Your task to perform on an android device: toggle priority inbox in the gmail app Image 0: 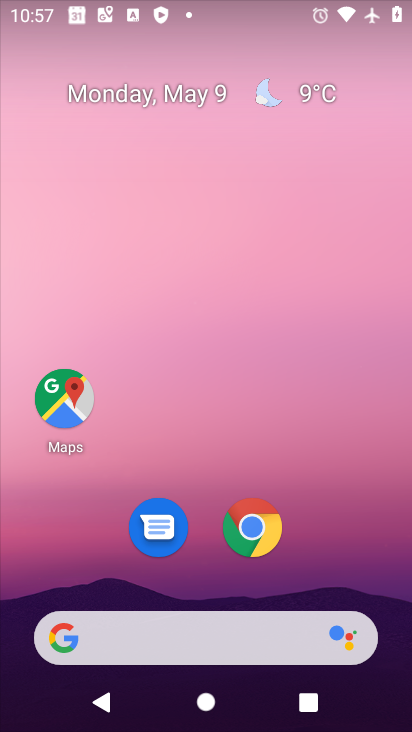
Step 0: drag from (383, 604) to (323, 166)
Your task to perform on an android device: toggle priority inbox in the gmail app Image 1: 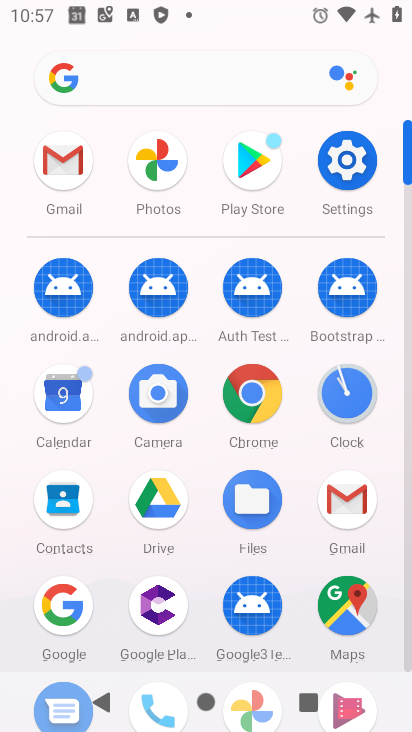
Step 1: click (407, 666)
Your task to perform on an android device: toggle priority inbox in the gmail app Image 2: 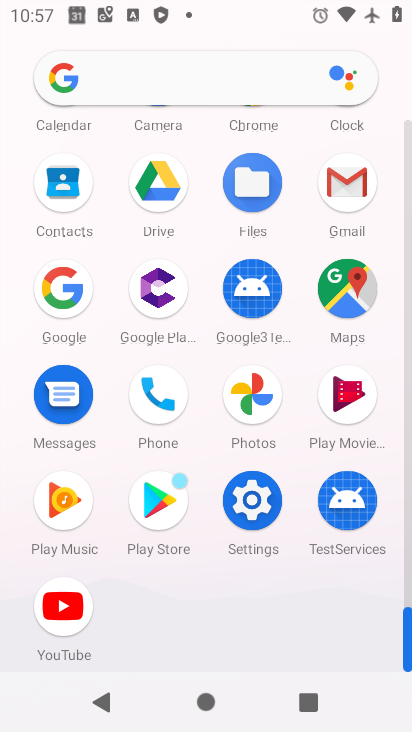
Step 2: click (342, 183)
Your task to perform on an android device: toggle priority inbox in the gmail app Image 3: 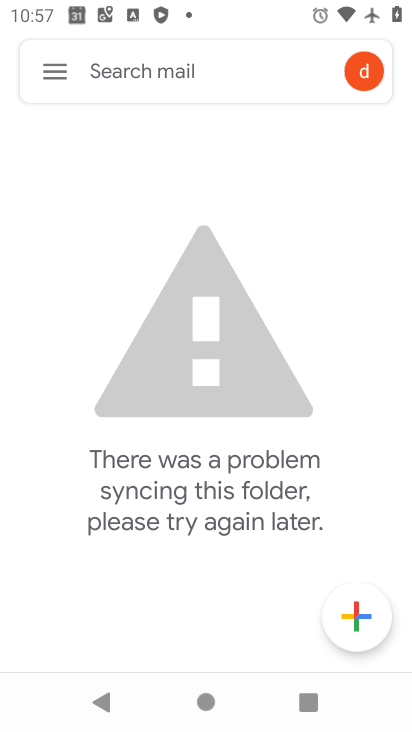
Step 3: click (49, 68)
Your task to perform on an android device: toggle priority inbox in the gmail app Image 4: 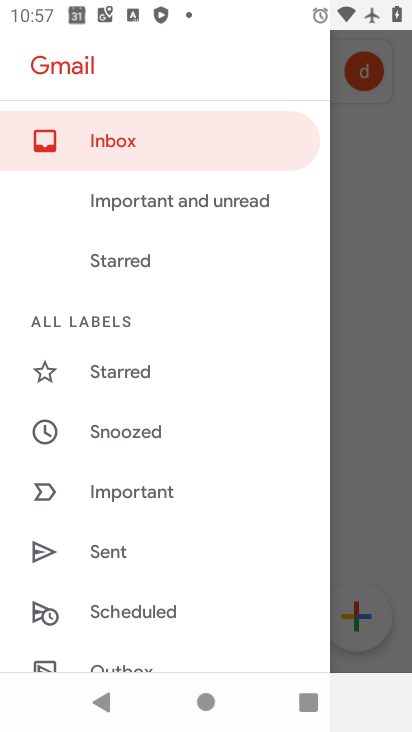
Step 4: drag from (207, 575) to (222, 283)
Your task to perform on an android device: toggle priority inbox in the gmail app Image 5: 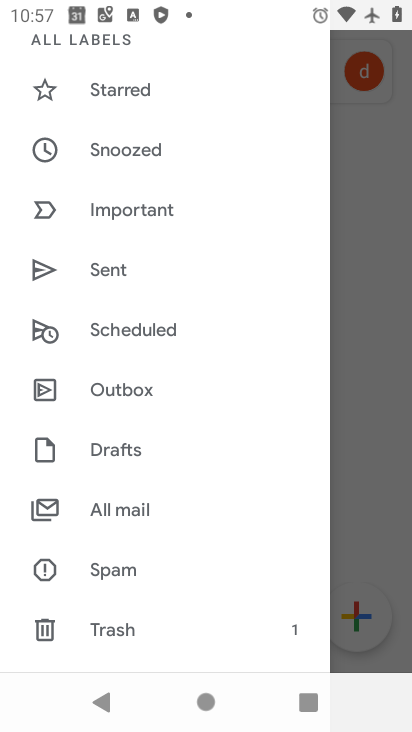
Step 5: drag from (162, 631) to (201, 140)
Your task to perform on an android device: toggle priority inbox in the gmail app Image 6: 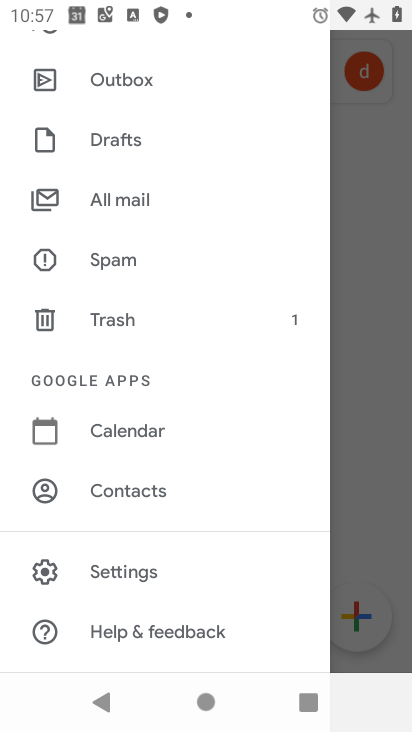
Step 6: click (117, 577)
Your task to perform on an android device: toggle priority inbox in the gmail app Image 7: 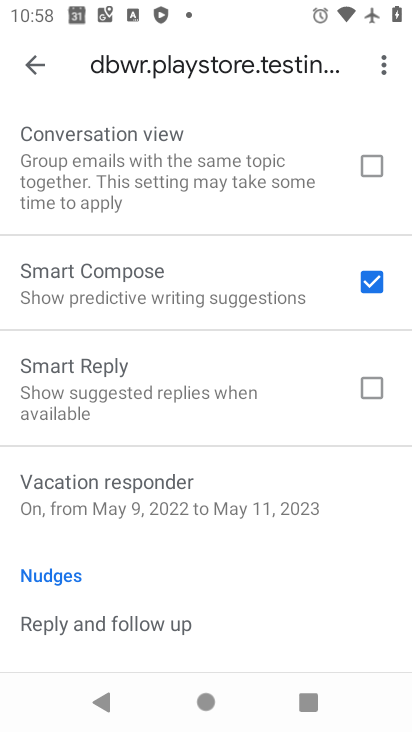
Step 7: drag from (281, 179) to (245, 537)
Your task to perform on an android device: toggle priority inbox in the gmail app Image 8: 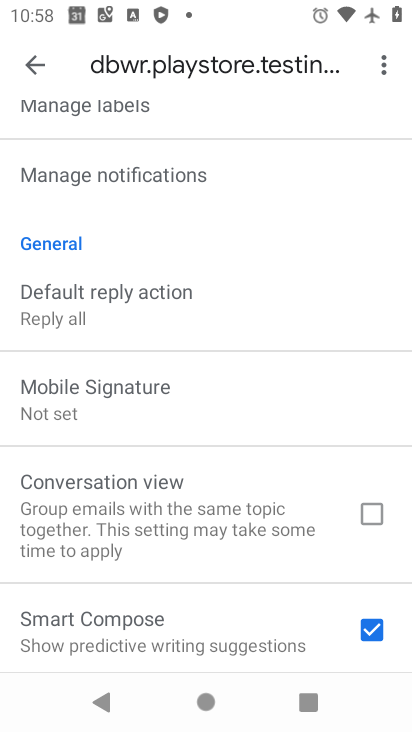
Step 8: drag from (257, 181) to (207, 485)
Your task to perform on an android device: toggle priority inbox in the gmail app Image 9: 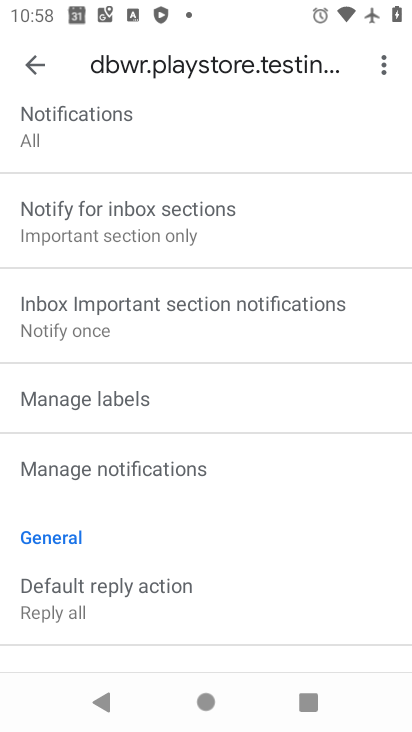
Step 9: drag from (282, 147) to (250, 531)
Your task to perform on an android device: toggle priority inbox in the gmail app Image 10: 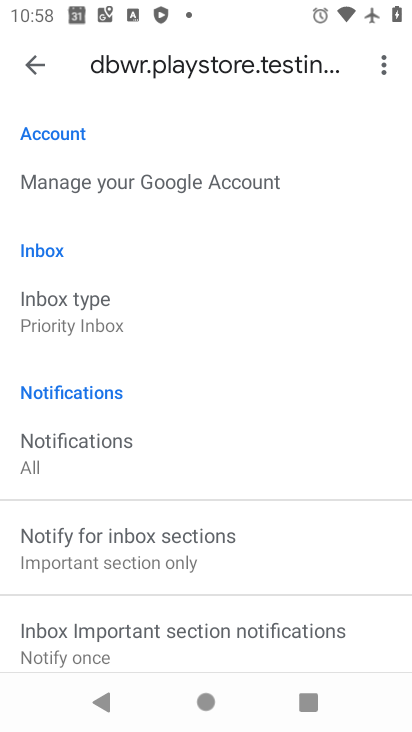
Step 10: drag from (276, 326) to (257, 551)
Your task to perform on an android device: toggle priority inbox in the gmail app Image 11: 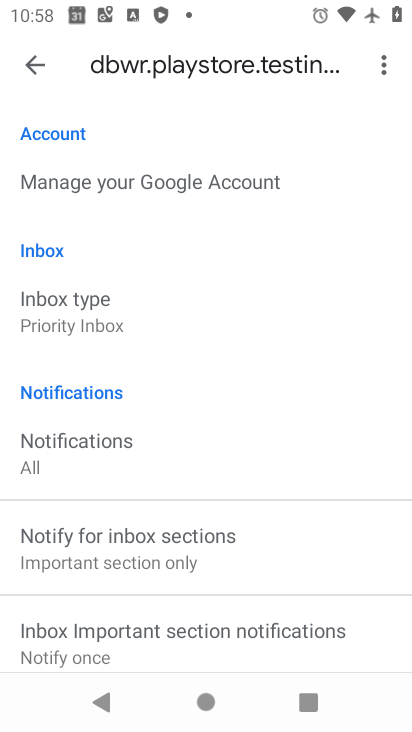
Step 11: click (41, 308)
Your task to perform on an android device: toggle priority inbox in the gmail app Image 12: 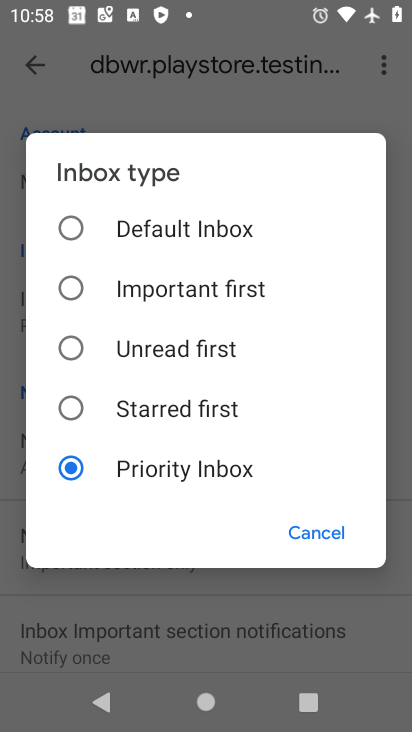
Step 12: click (64, 225)
Your task to perform on an android device: toggle priority inbox in the gmail app Image 13: 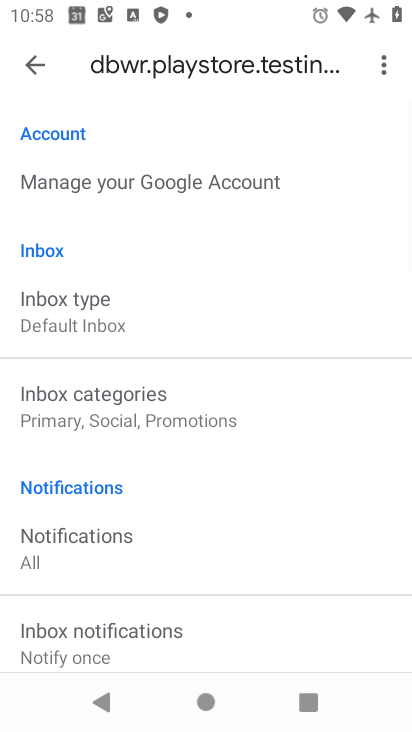
Step 13: task complete